Your task to perform on an android device: change the clock display to digital Image 0: 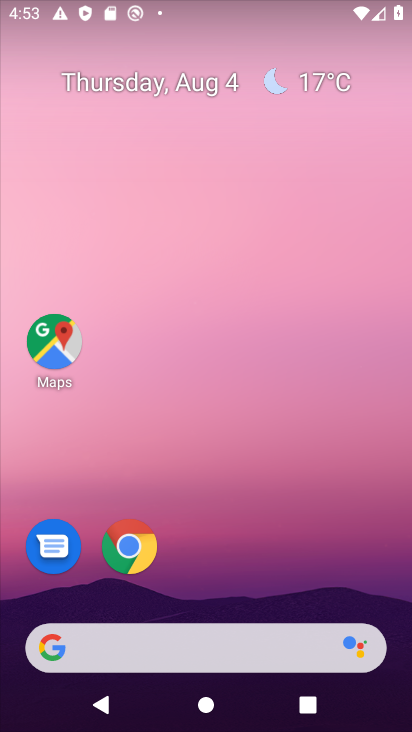
Step 0: drag from (185, 505) to (176, 0)
Your task to perform on an android device: change the clock display to digital Image 1: 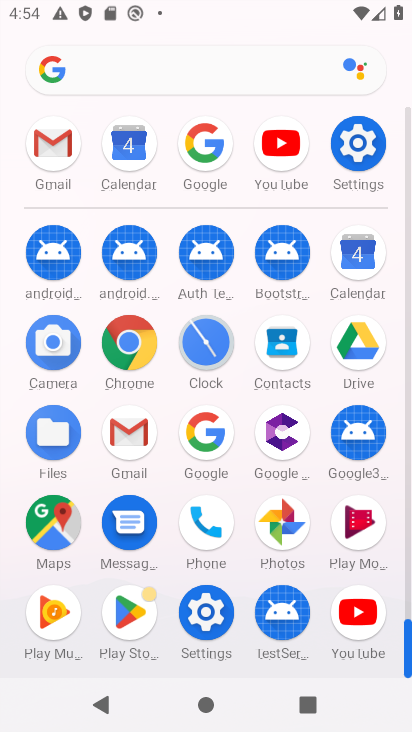
Step 1: click (189, 364)
Your task to perform on an android device: change the clock display to digital Image 2: 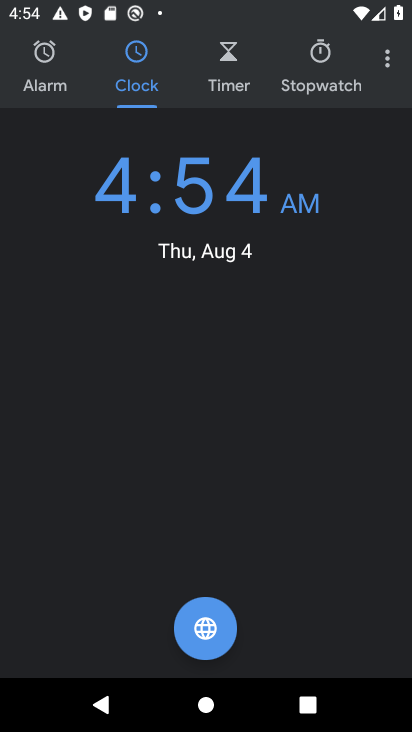
Step 2: click (391, 60)
Your task to perform on an android device: change the clock display to digital Image 3: 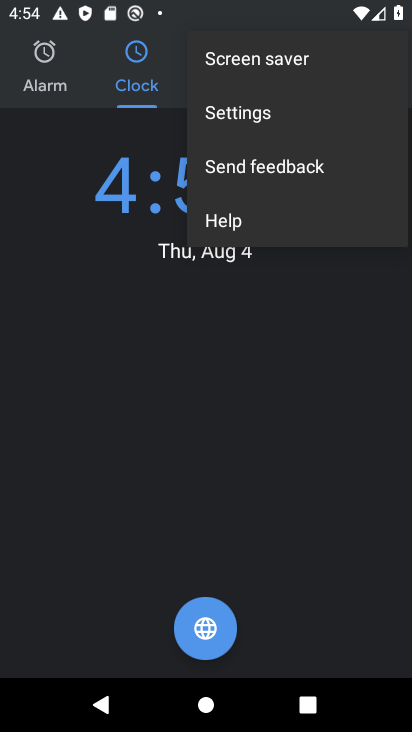
Step 3: click (258, 114)
Your task to perform on an android device: change the clock display to digital Image 4: 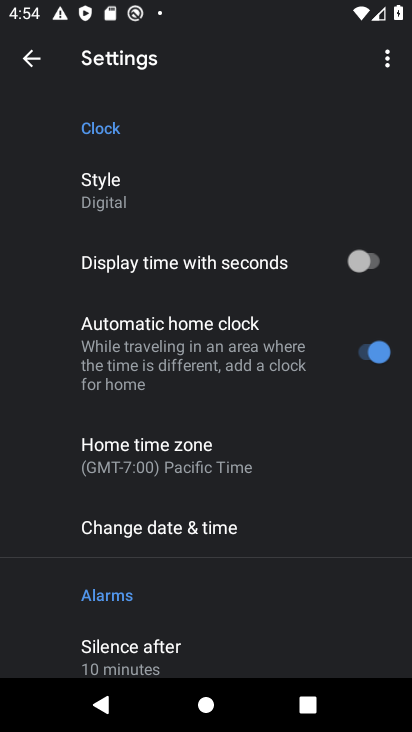
Step 4: click (127, 194)
Your task to perform on an android device: change the clock display to digital Image 5: 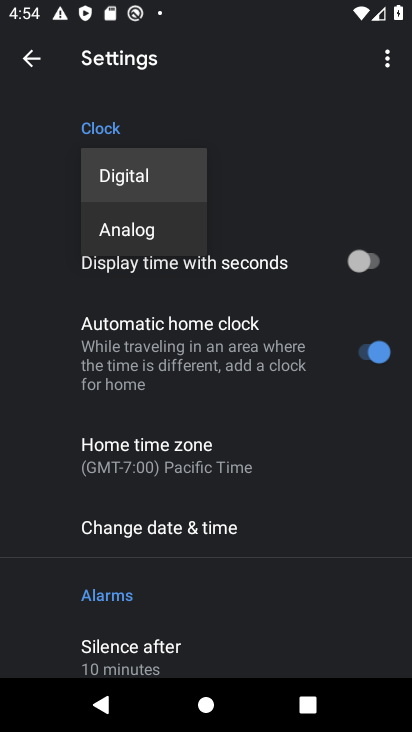
Step 5: task complete